Your task to perform on an android device: turn smart compose on in the gmail app Image 0: 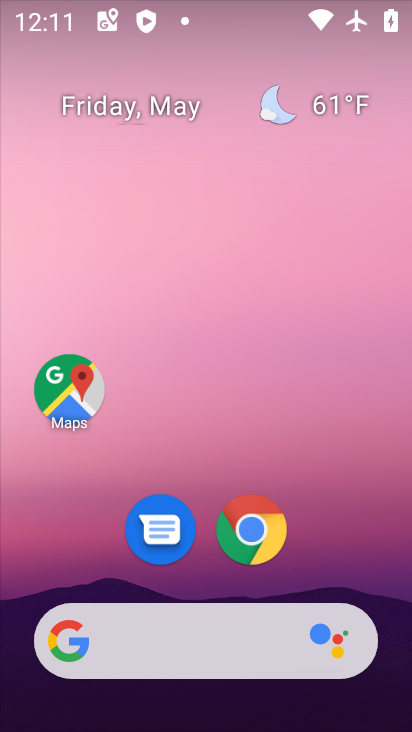
Step 0: drag from (359, 578) to (299, 46)
Your task to perform on an android device: turn smart compose on in the gmail app Image 1: 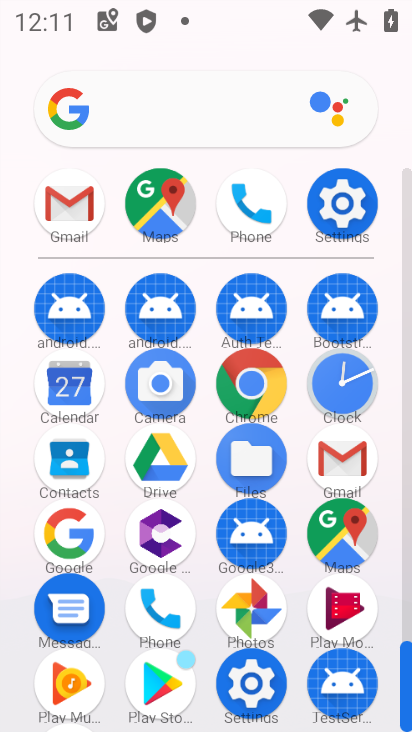
Step 1: click (84, 238)
Your task to perform on an android device: turn smart compose on in the gmail app Image 2: 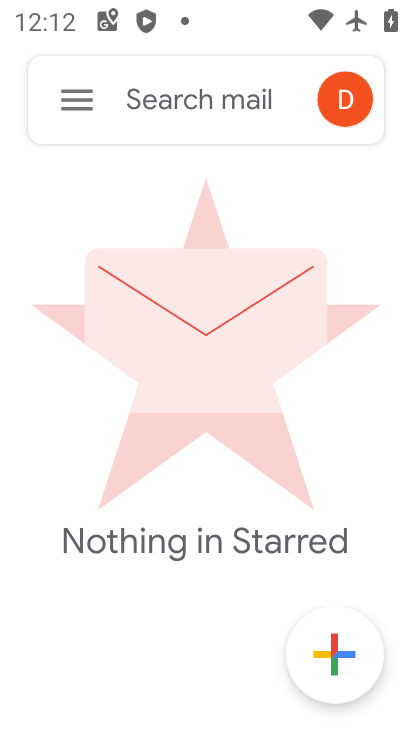
Step 2: click (46, 90)
Your task to perform on an android device: turn smart compose on in the gmail app Image 3: 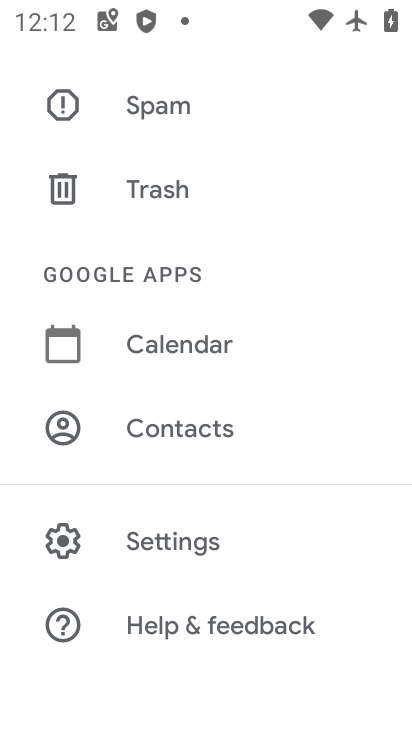
Step 3: drag from (134, 395) to (156, 646)
Your task to perform on an android device: turn smart compose on in the gmail app Image 4: 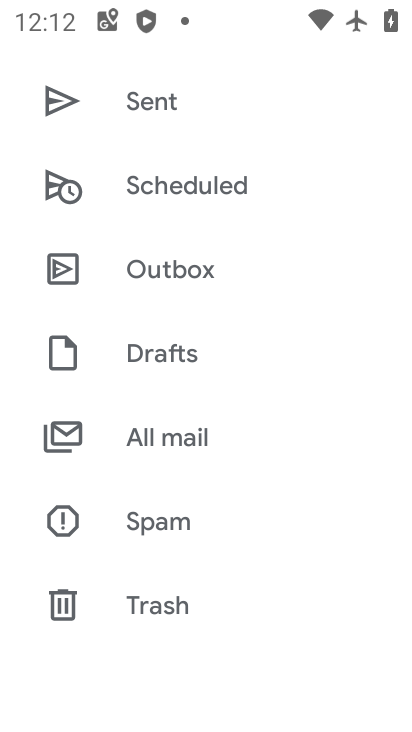
Step 4: drag from (156, 646) to (302, 0)
Your task to perform on an android device: turn smart compose on in the gmail app Image 5: 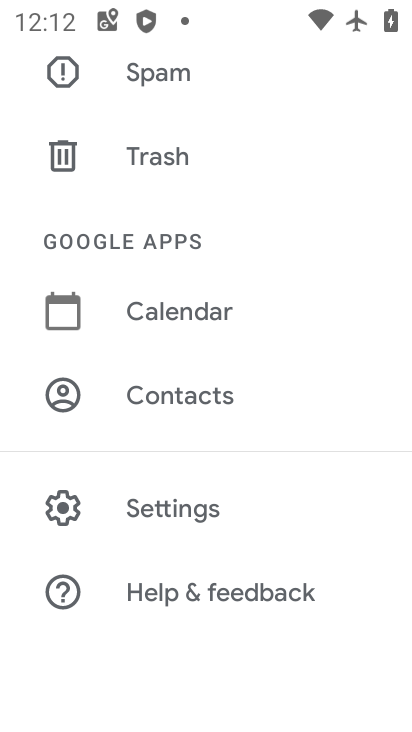
Step 5: click (176, 501)
Your task to perform on an android device: turn smart compose on in the gmail app Image 6: 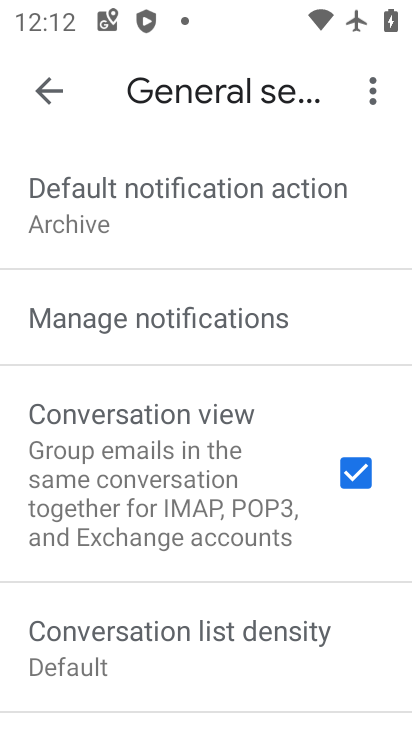
Step 6: task complete